Your task to perform on an android device: Go to sound settings Image 0: 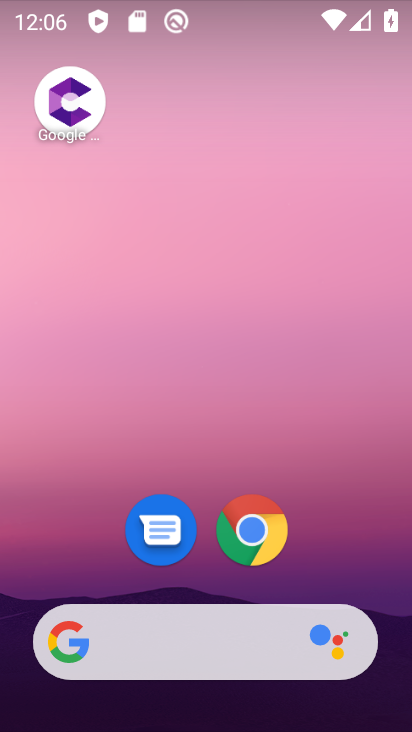
Step 0: drag from (352, 549) to (346, 351)
Your task to perform on an android device: Go to sound settings Image 1: 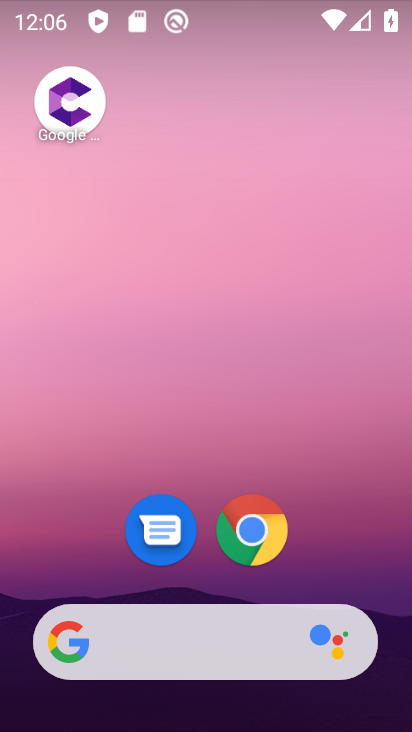
Step 1: drag from (312, 404) to (288, 291)
Your task to perform on an android device: Go to sound settings Image 2: 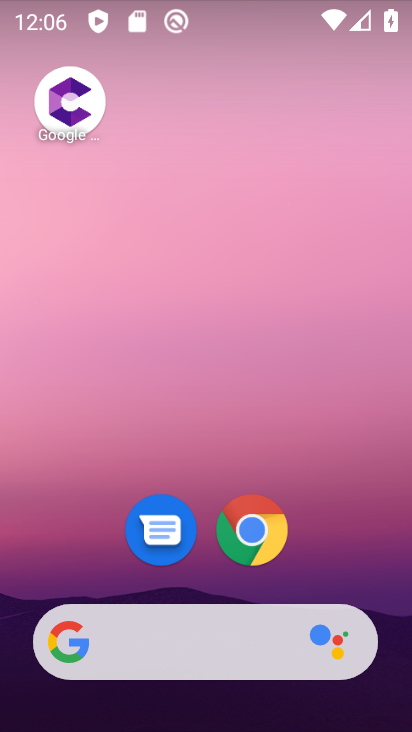
Step 2: drag from (314, 487) to (333, 214)
Your task to perform on an android device: Go to sound settings Image 3: 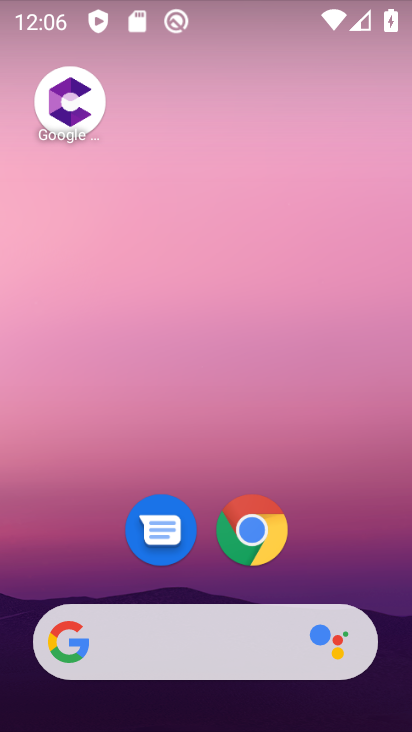
Step 3: drag from (299, 536) to (304, 199)
Your task to perform on an android device: Go to sound settings Image 4: 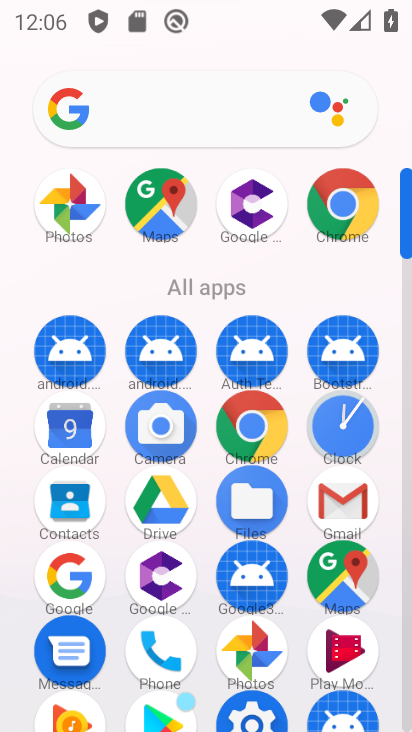
Step 4: drag from (277, 629) to (302, 238)
Your task to perform on an android device: Go to sound settings Image 5: 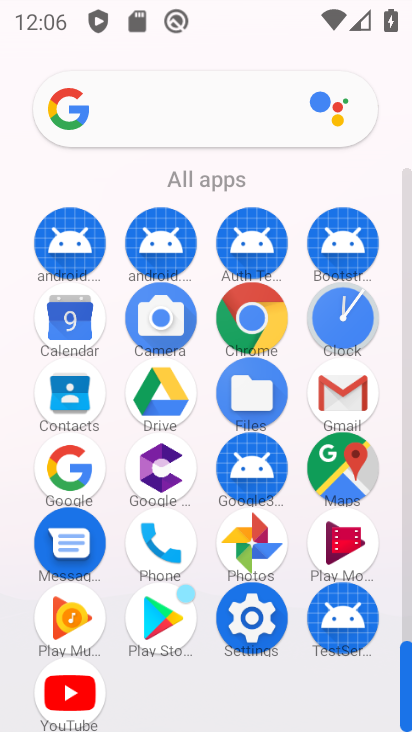
Step 5: click (255, 619)
Your task to perform on an android device: Go to sound settings Image 6: 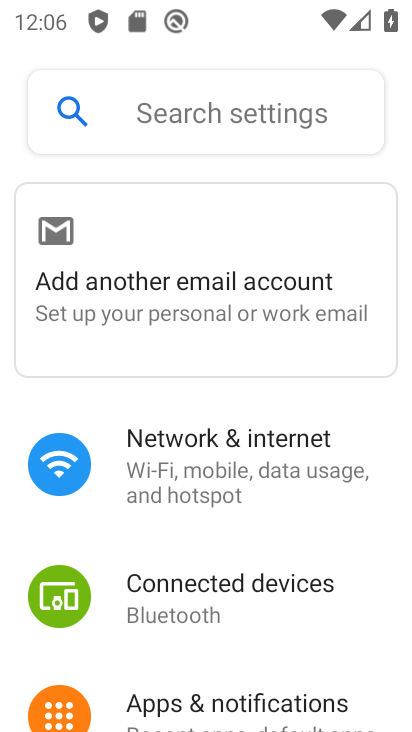
Step 6: drag from (214, 656) to (310, 71)
Your task to perform on an android device: Go to sound settings Image 7: 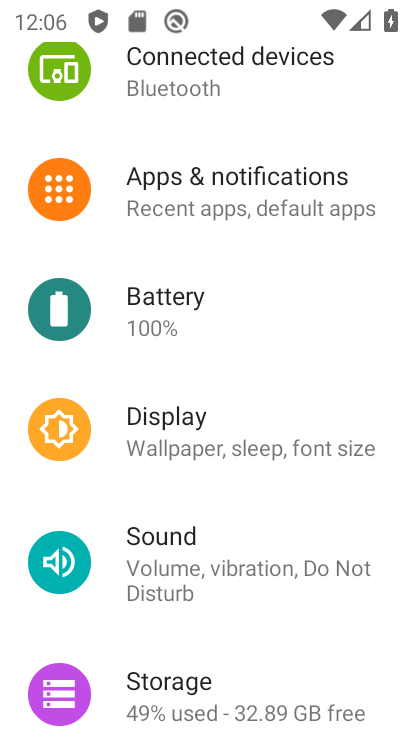
Step 7: click (189, 537)
Your task to perform on an android device: Go to sound settings Image 8: 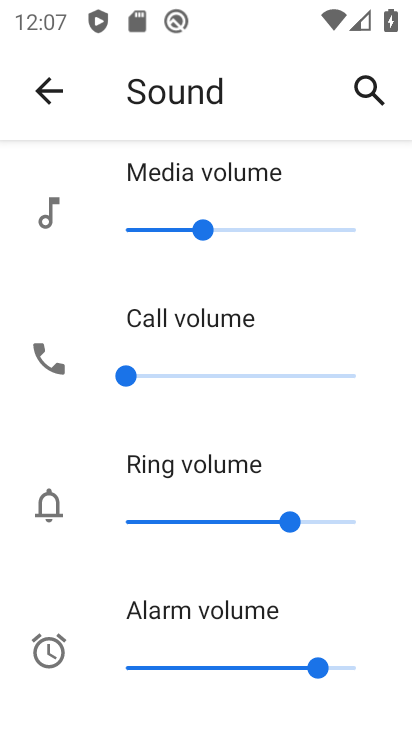
Step 8: task complete